Your task to perform on an android device: Open network settings Image 0: 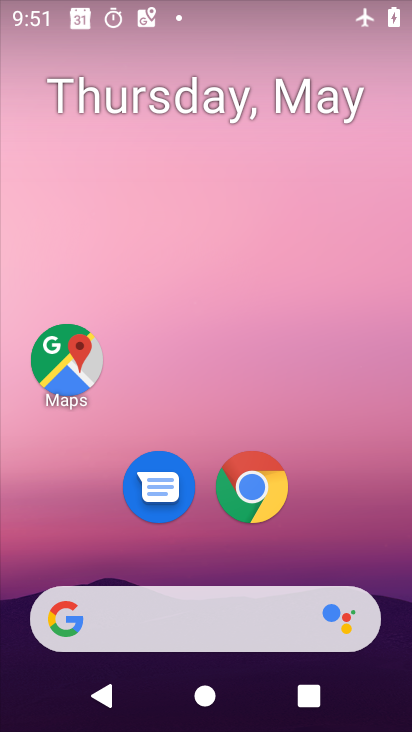
Step 0: drag from (227, 498) to (181, 174)
Your task to perform on an android device: Open network settings Image 1: 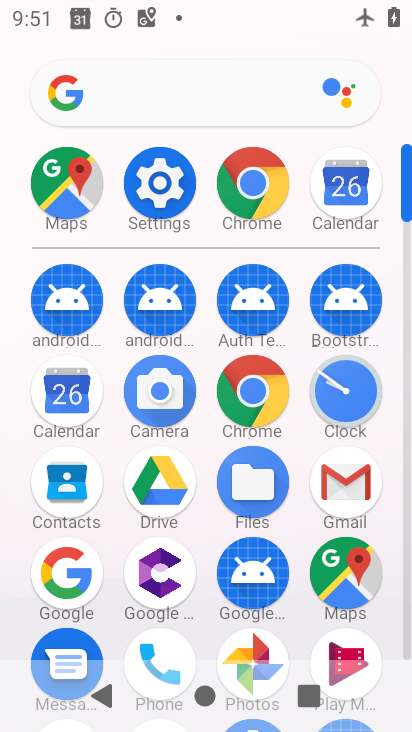
Step 1: click (148, 189)
Your task to perform on an android device: Open network settings Image 2: 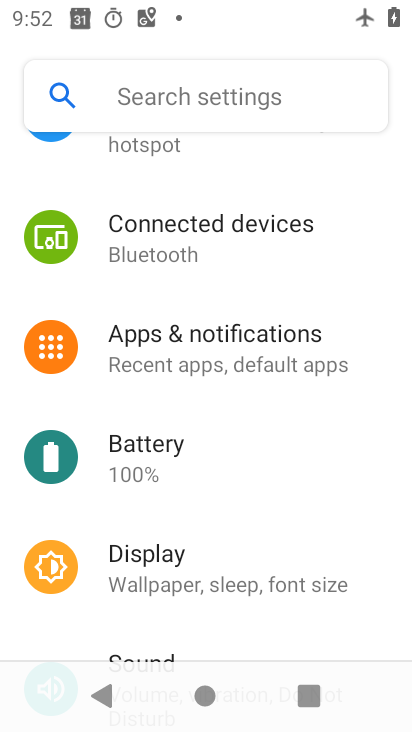
Step 2: drag from (200, 263) to (205, 655)
Your task to perform on an android device: Open network settings Image 3: 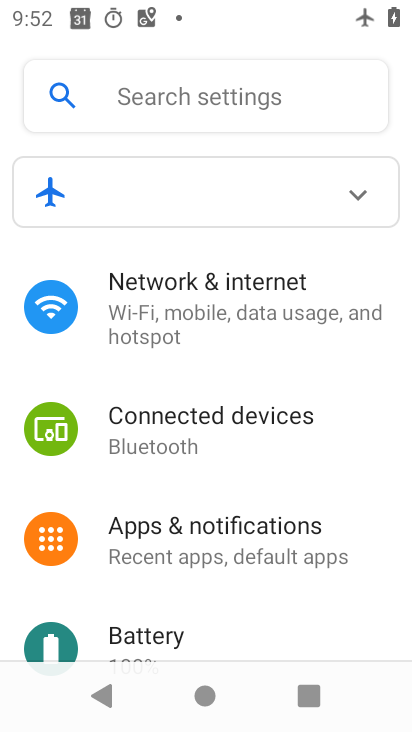
Step 3: click (185, 312)
Your task to perform on an android device: Open network settings Image 4: 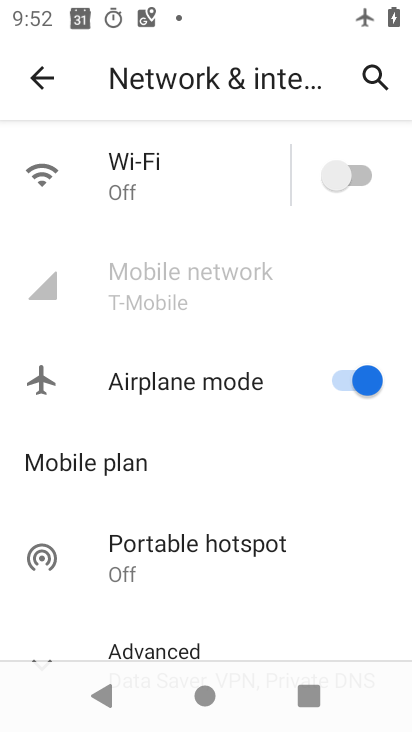
Step 4: click (244, 279)
Your task to perform on an android device: Open network settings Image 5: 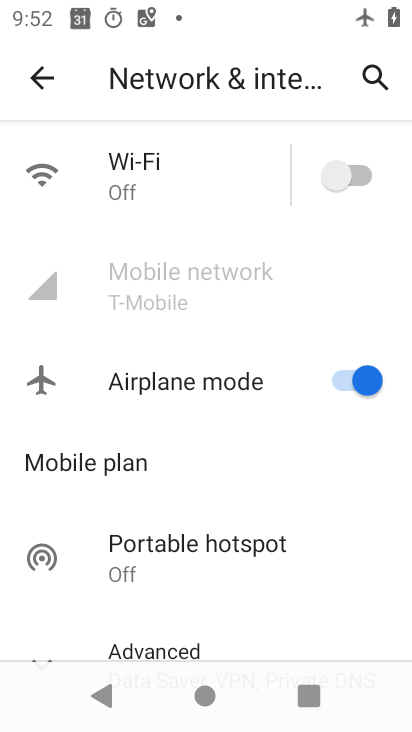
Step 5: task complete